Your task to perform on an android device: Go to CNN.com Image 0: 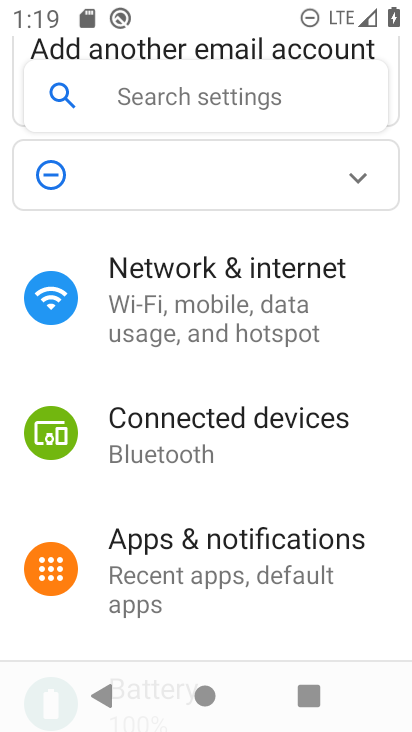
Step 0: press home button
Your task to perform on an android device: Go to CNN.com Image 1: 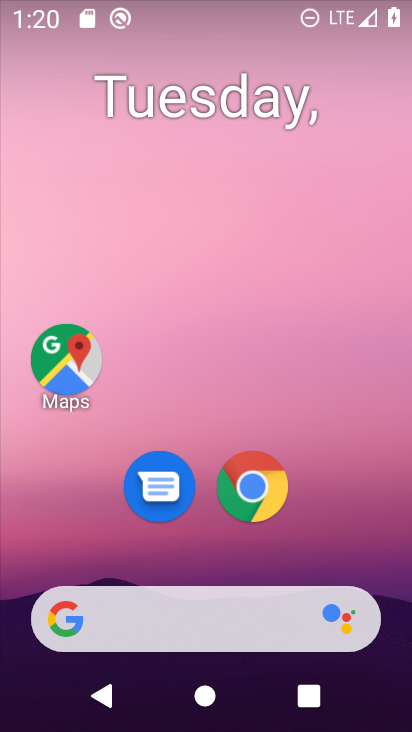
Step 1: click (250, 491)
Your task to perform on an android device: Go to CNN.com Image 2: 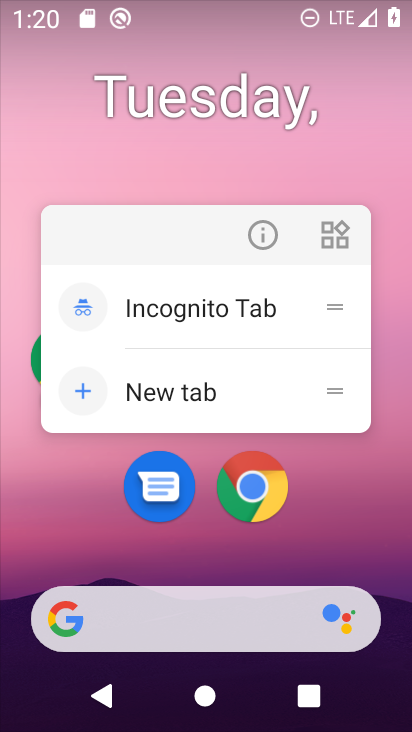
Step 2: click (268, 488)
Your task to perform on an android device: Go to CNN.com Image 3: 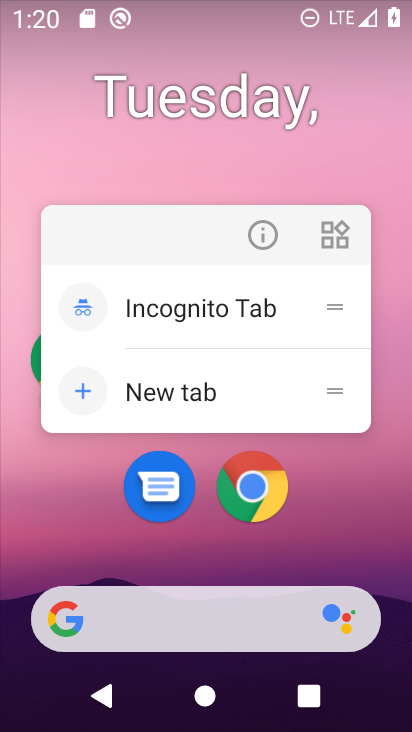
Step 3: click (258, 488)
Your task to perform on an android device: Go to CNN.com Image 4: 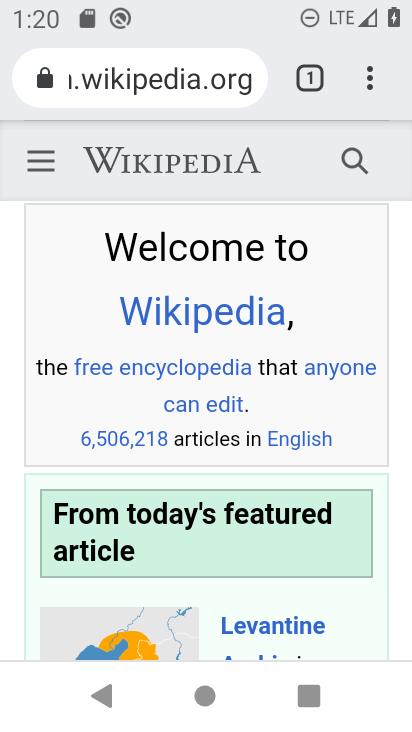
Step 4: click (162, 76)
Your task to perform on an android device: Go to CNN.com Image 5: 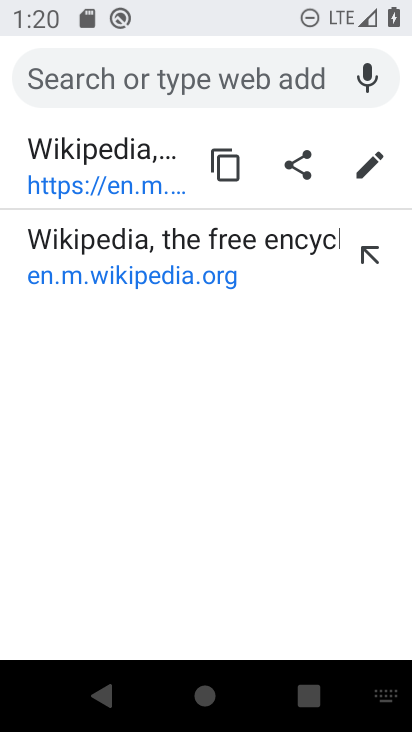
Step 5: type "CNN.com"
Your task to perform on an android device: Go to CNN.com Image 6: 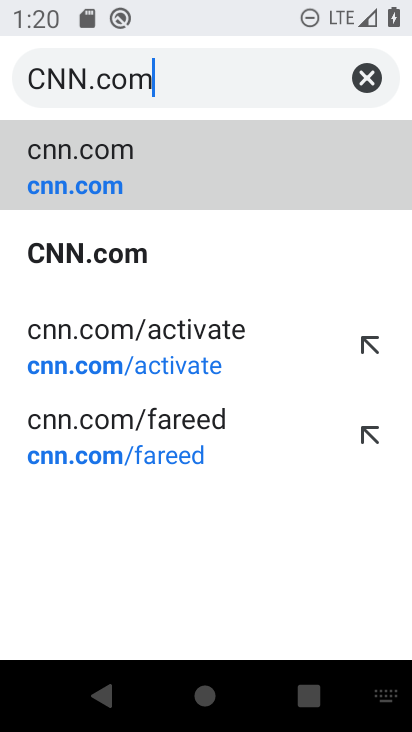
Step 6: type ""
Your task to perform on an android device: Go to CNN.com Image 7: 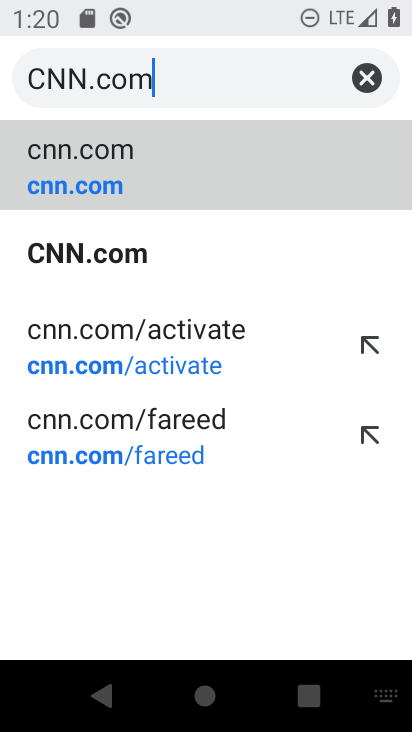
Step 7: click (205, 171)
Your task to perform on an android device: Go to CNN.com Image 8: 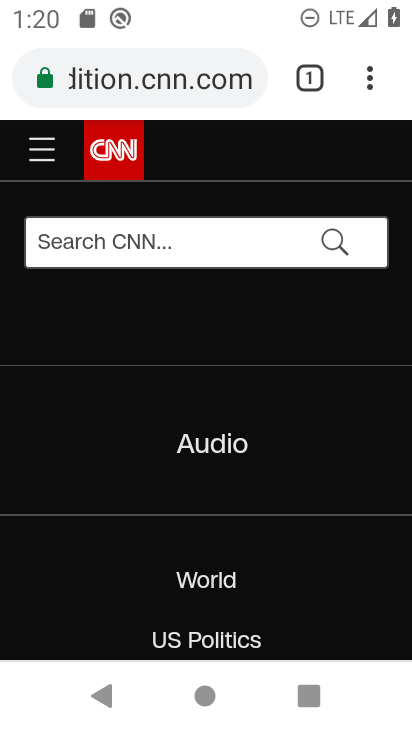
Step 8: task complete